Your task to perform on an android device: check google app version Image 0: 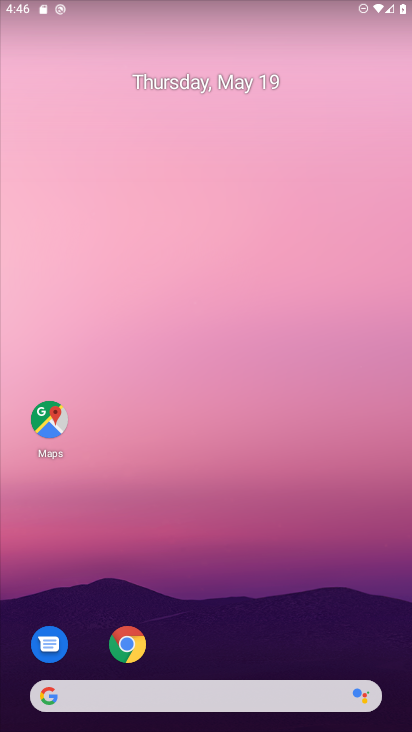
Step 0: press home button
Your task to perform on an android device: check google app version Image 1: 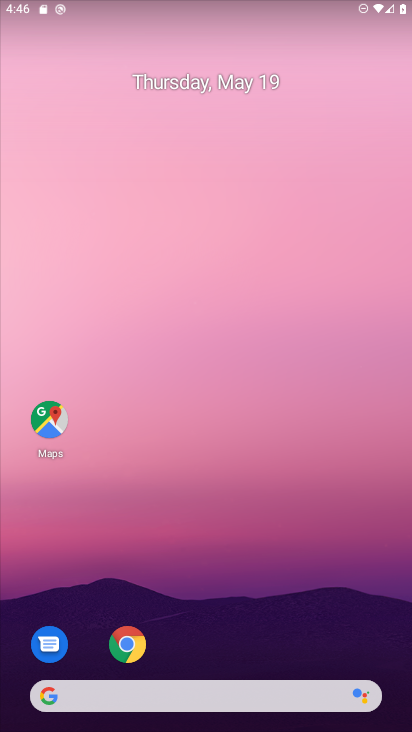
Step 1: drag from (244, 641) to (400, 56)
Your task to perform on an android device: check google app version Image 2: 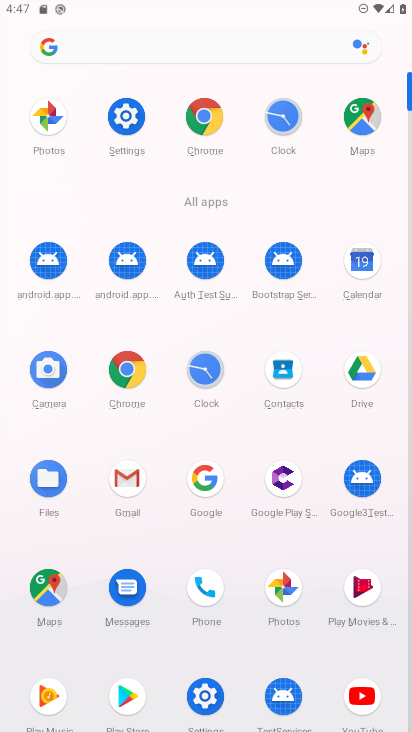
Step 2: drag from (178, 650) to (200, 579)
Your task to perform on an android device: check google app version Image 3: 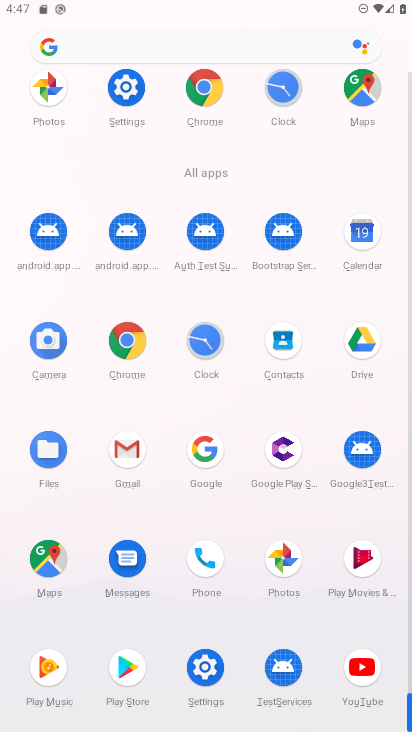
Step 3: click (212, 456)
Your task to perform on an android device: check google app version Image 4: 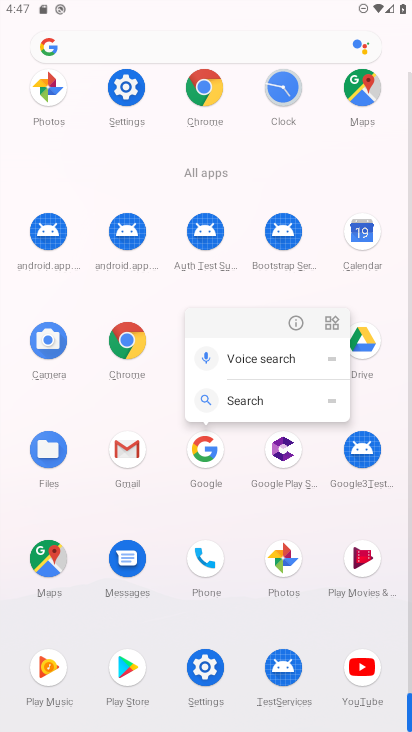
Step 4: click (288, 324)
Your task to perform on an android device: check google app version Image 5: 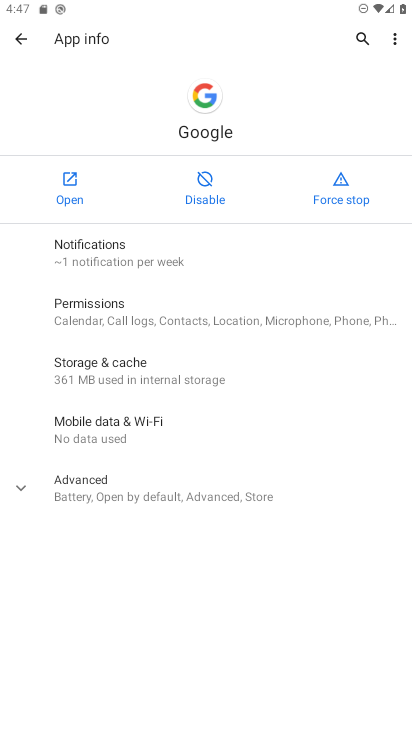
Step 5: click (96, 497)
Your task to perform on an android device: check google app version Image 6: 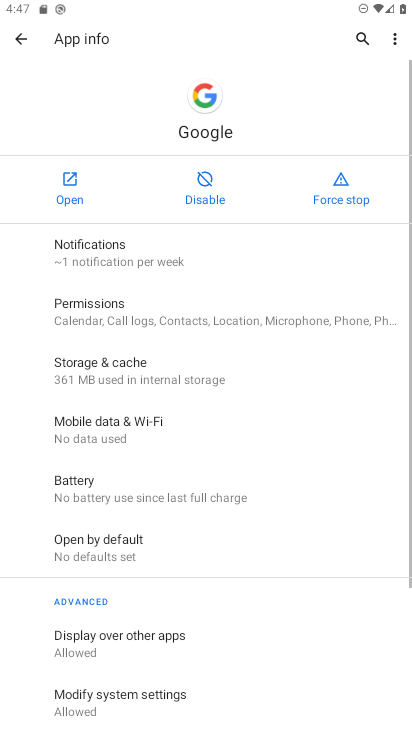
Step 6: task complete